Your task to perform on an android device: Clear the shopping cart on costco.com. Search for razer blade on costco.com, select the first entry, add it to the cart, then select checkout. Image 0: 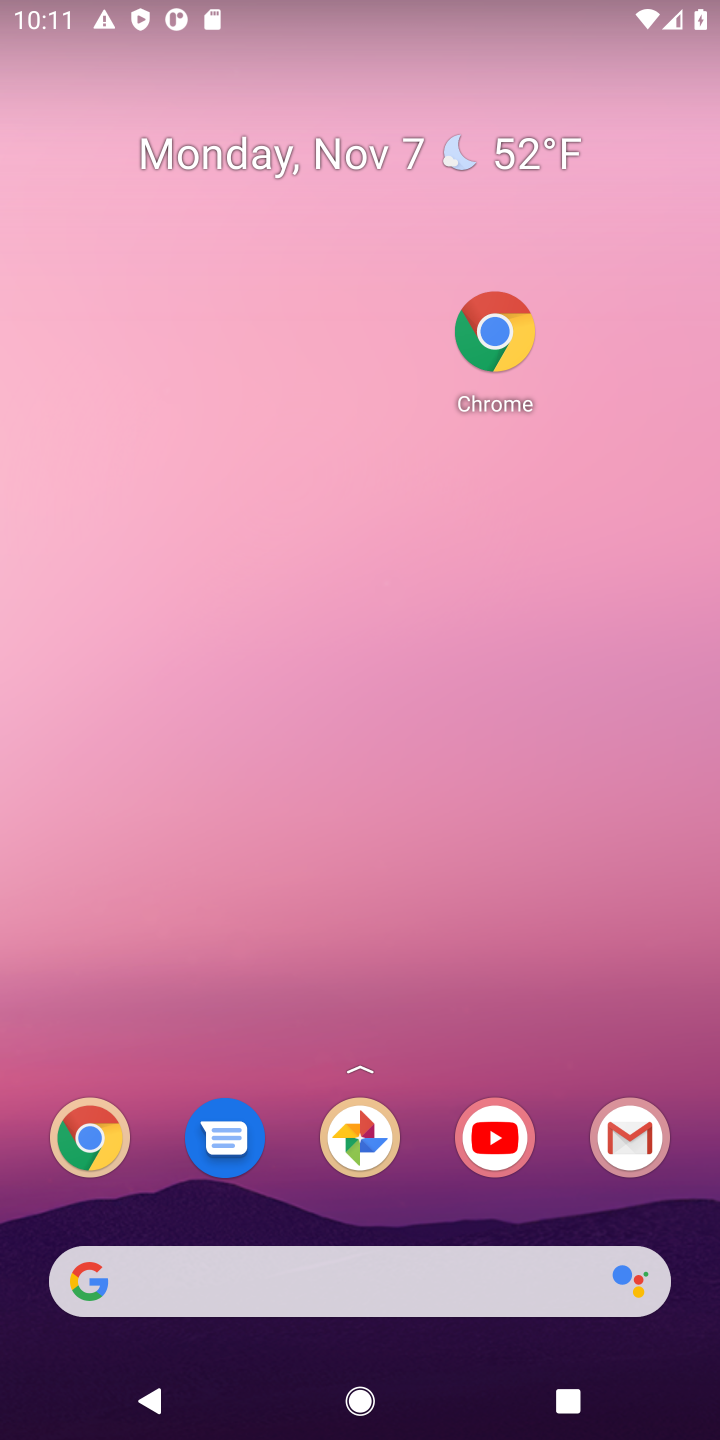
Step 0: drag from (438, 1217) to (244, 90)
Your task to perform on an android device: Clear the shopping cart on costco.com. Search for razer blade on costco.com, select the first entry, add it to the cart, then select checkout. Image 1: 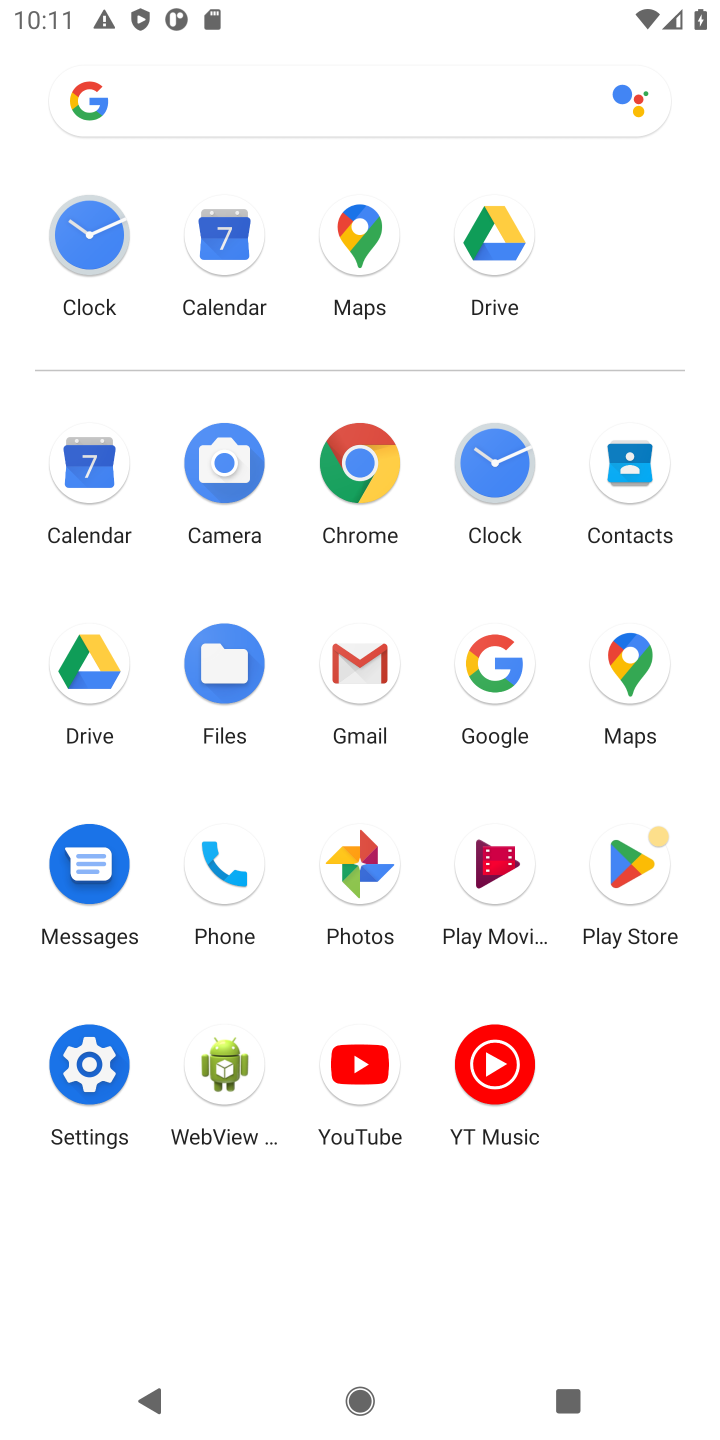
Step 1: click (364, 522)
Your task to perform on an android device: Clear the shopping cart on costco.com. Search for razer blade on costco.com, select the first entry, add it to the cart, then select checkout. Image 2: 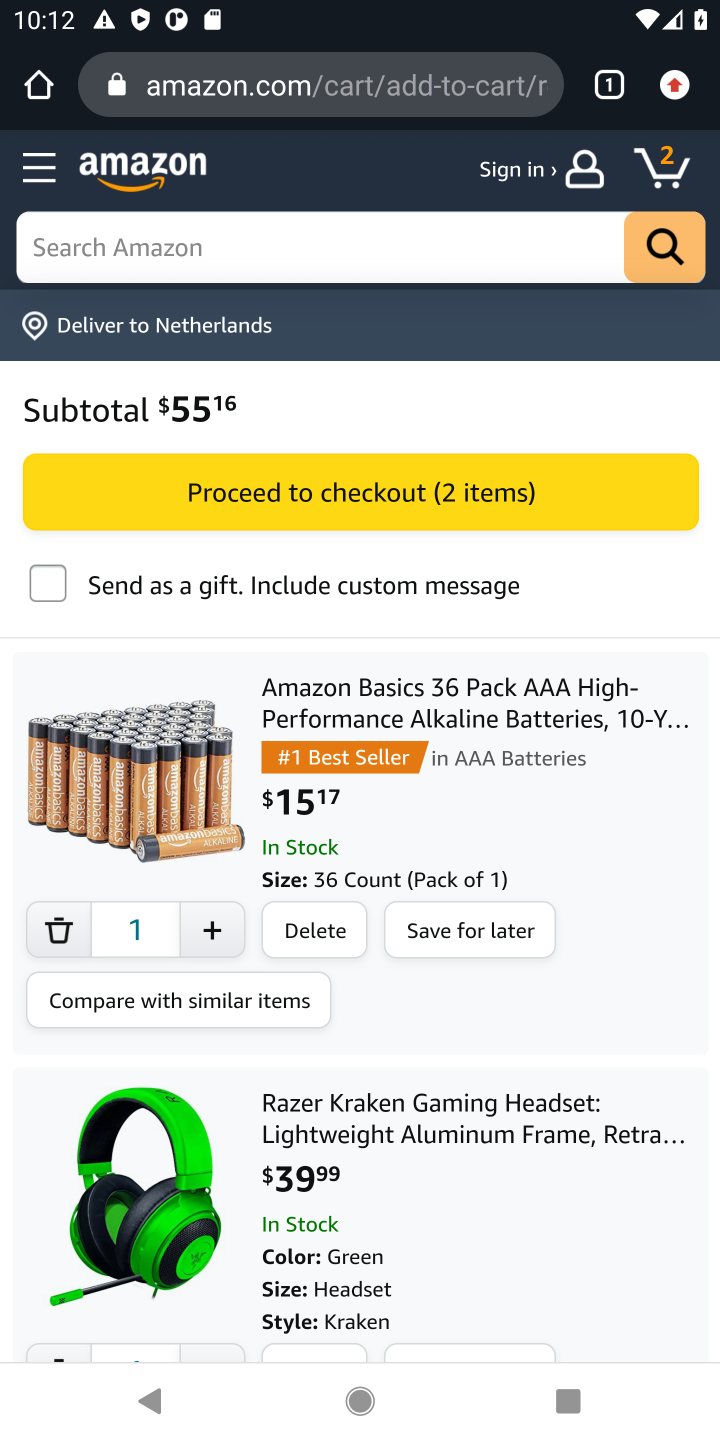
Step 2: click (269, 84)
Your task to perform on an android device: Clear the shopping cart on costco.com. Search for razer blade on costco.com, select the first entry, add it to the cart, then select checkout. Image 3: 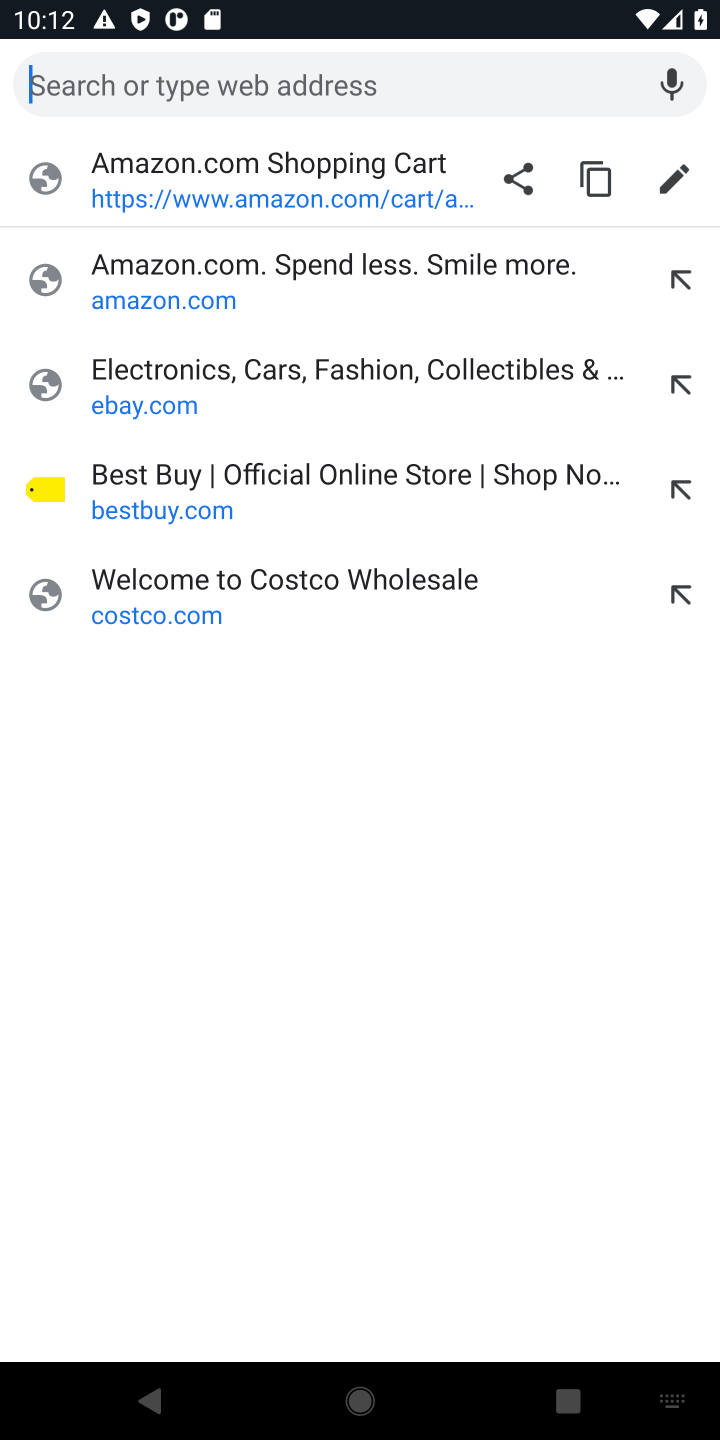
Step 3: click (153, 607)
Your task to perform on an android device: Clear the shopping cart on costco.com. Search for razer blade on costco.com, select the first entry, add it to the cart, then select checkout. Image 4: 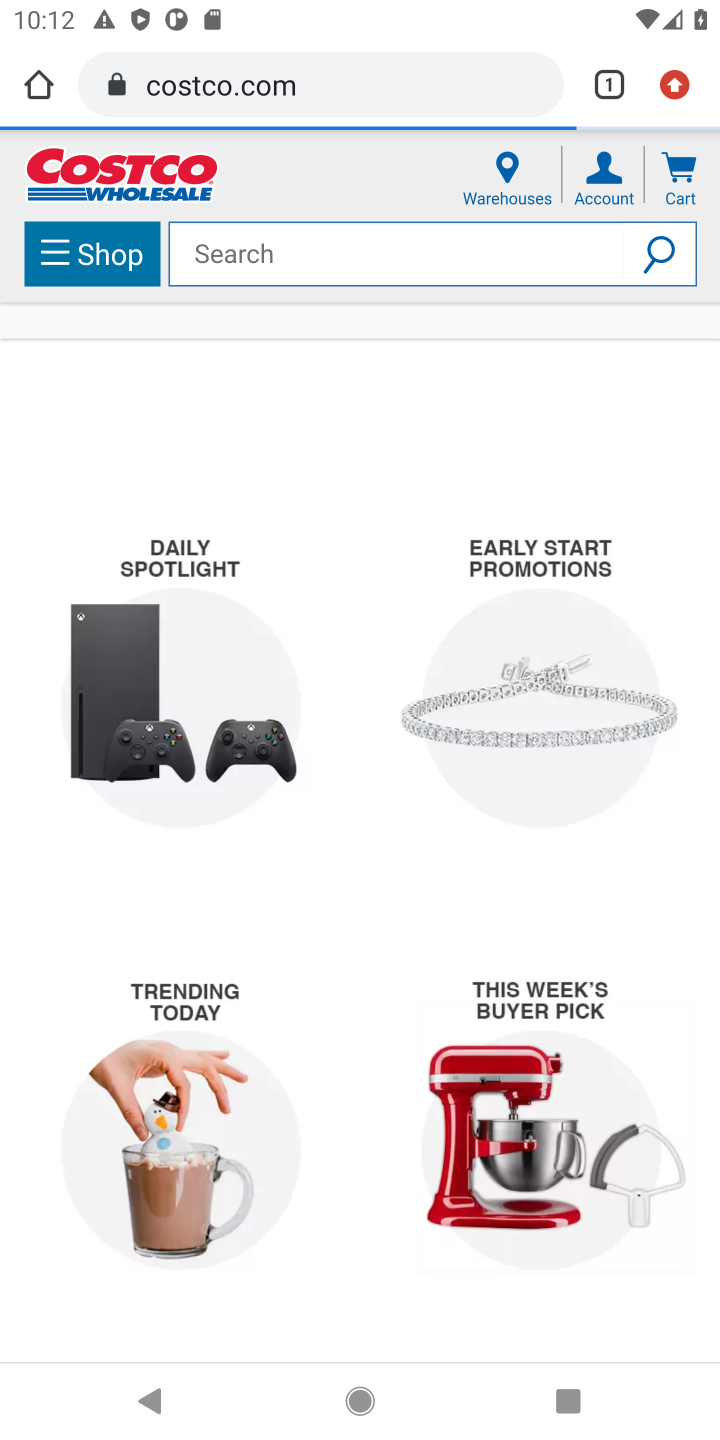
Step 4: click (682, 173)
Your task to perform on an android device: Clear the shopping cart on costco.com. Search for razer blade on costco.com, select the first entry, add it to the cart, then select checkout. Image 5: 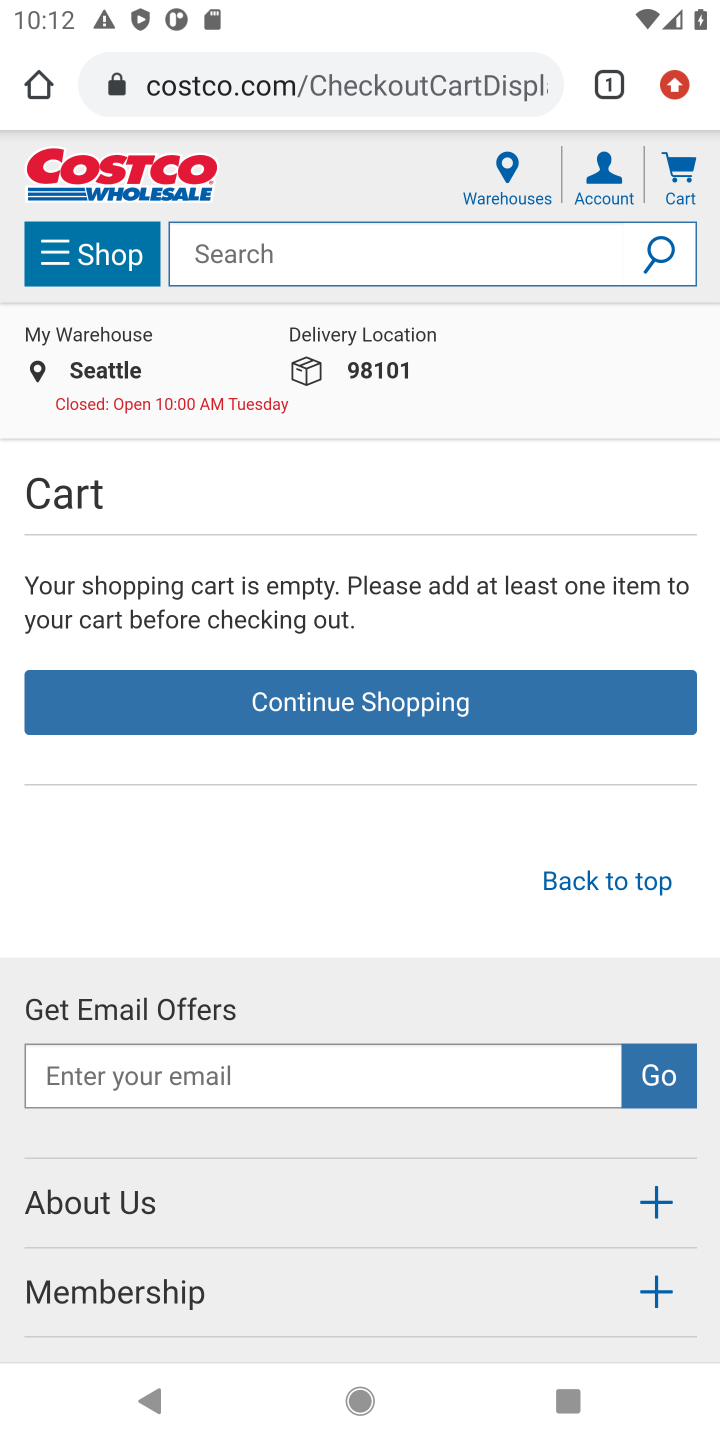
Step 5: click (494, 259)
Your task to perform on an android device: Clear the shopping cart on costco.com. Search for razer blade on costco.com, select the first entry, add it to the cart, then select checkout. Image 6: 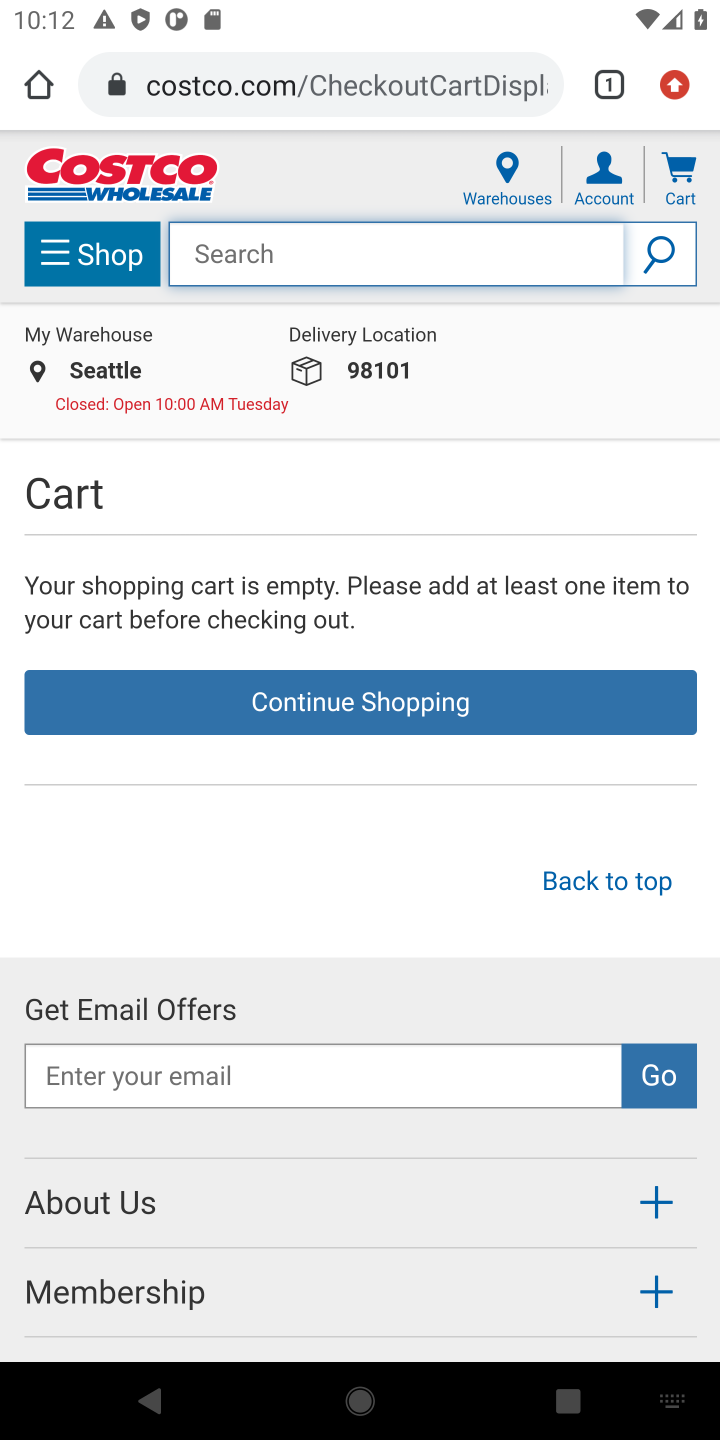
Step 6: type "razer blade"
Your task to perform on an android device: Clear the shopping cart on costco.com. Search for razer blade on costco.com, select the first entry, add it to the cart, then select checkout. Image 7: 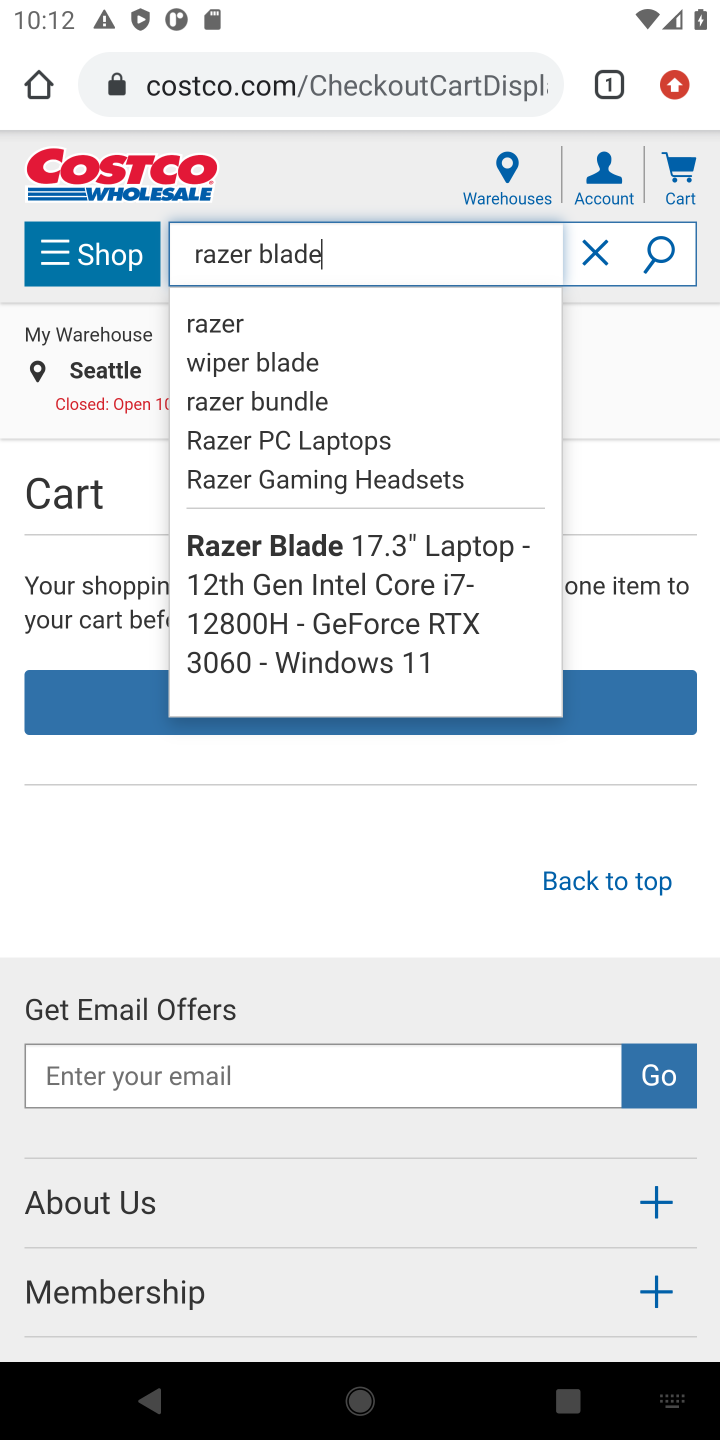
Step 7: press enter
Your task to perform on an android device: Clear the shopping cart on costco.com. Search for razer blade on costco.com, select the first entry, add it to the cart, then select checkout. Image 8: 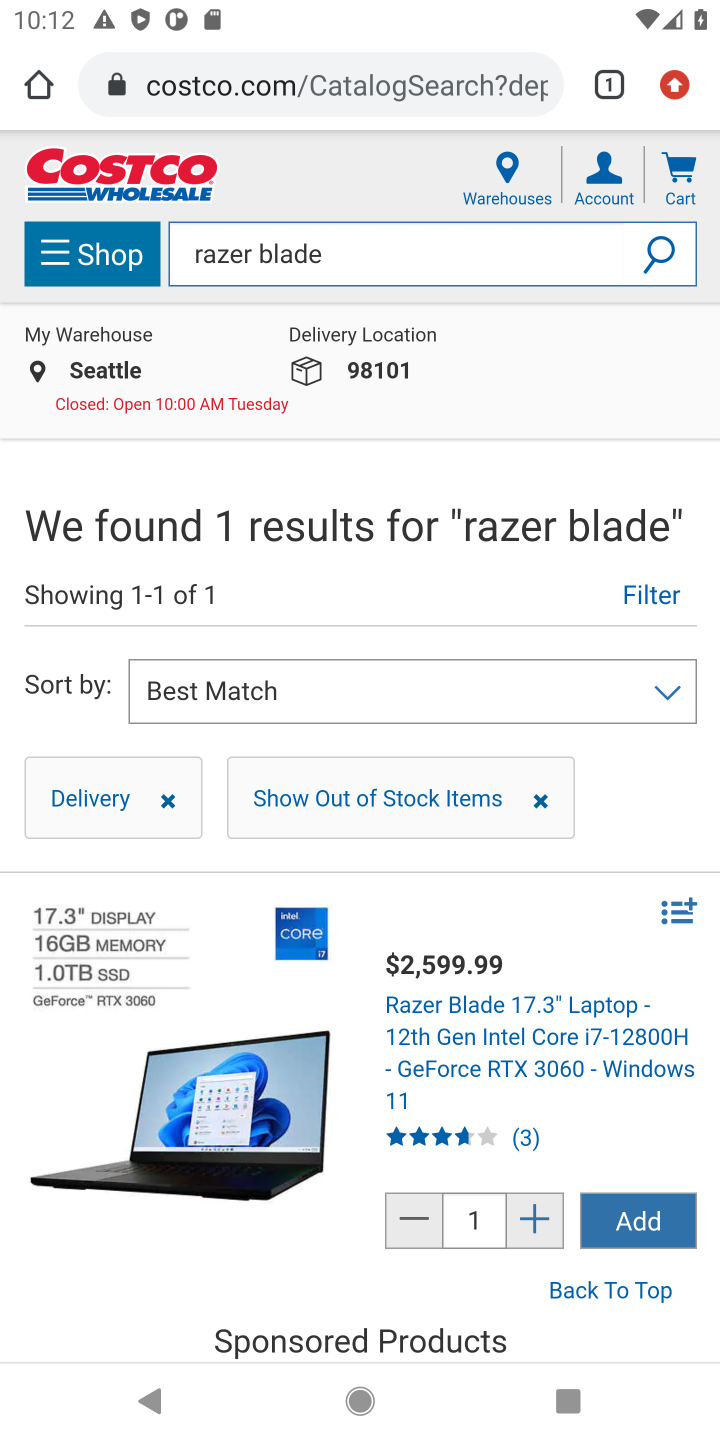
Step 8: drag from (551, 1061) to (536, 658)
Your task to perform on an android device: Clear the shopping cart on costco.com. Search for razer blade on costco.com, select the first entry, add it to the cart, then select checkout. Image 9: 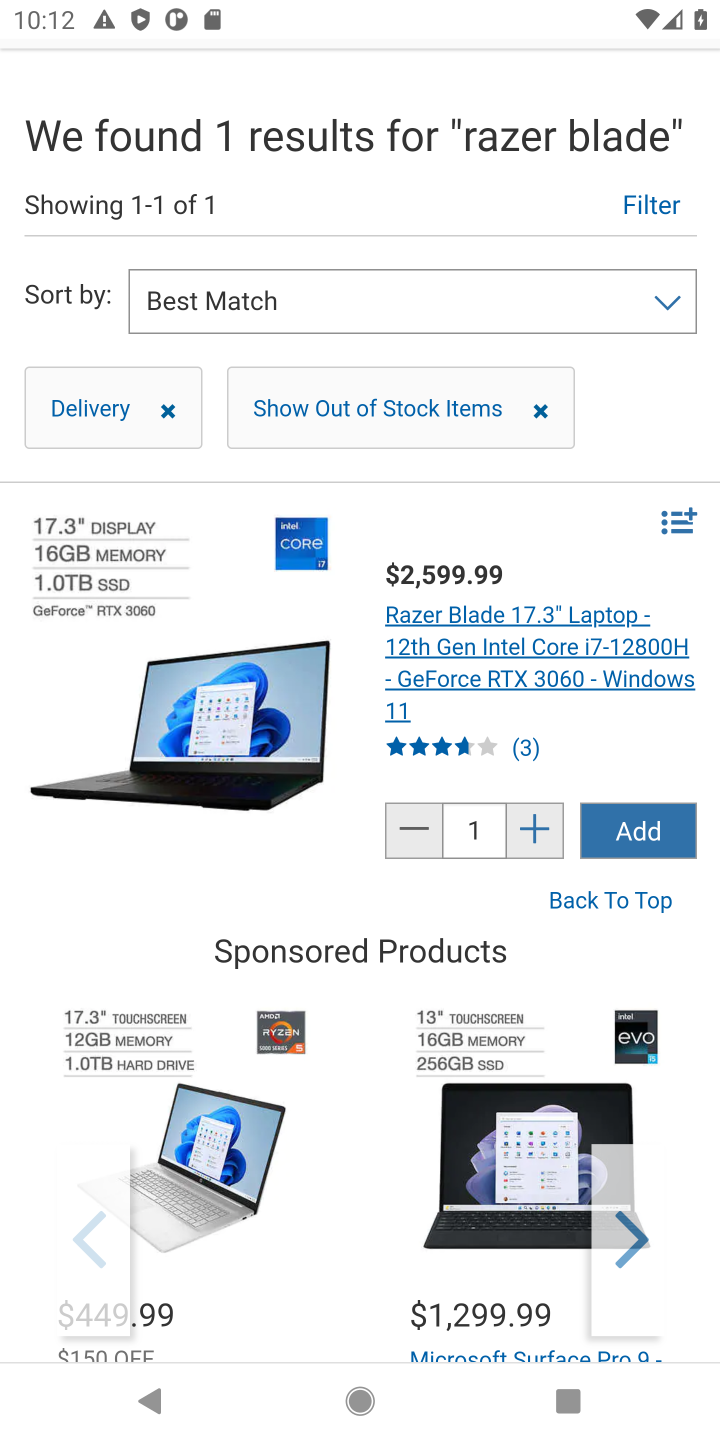
Step 9: click (649, 840)
Your task to perform on an android device: Clear the shopping cart on costco.com. Search for razer blade on costco.com, select the first entry, add it to the cart, then select checkout. Image 10: 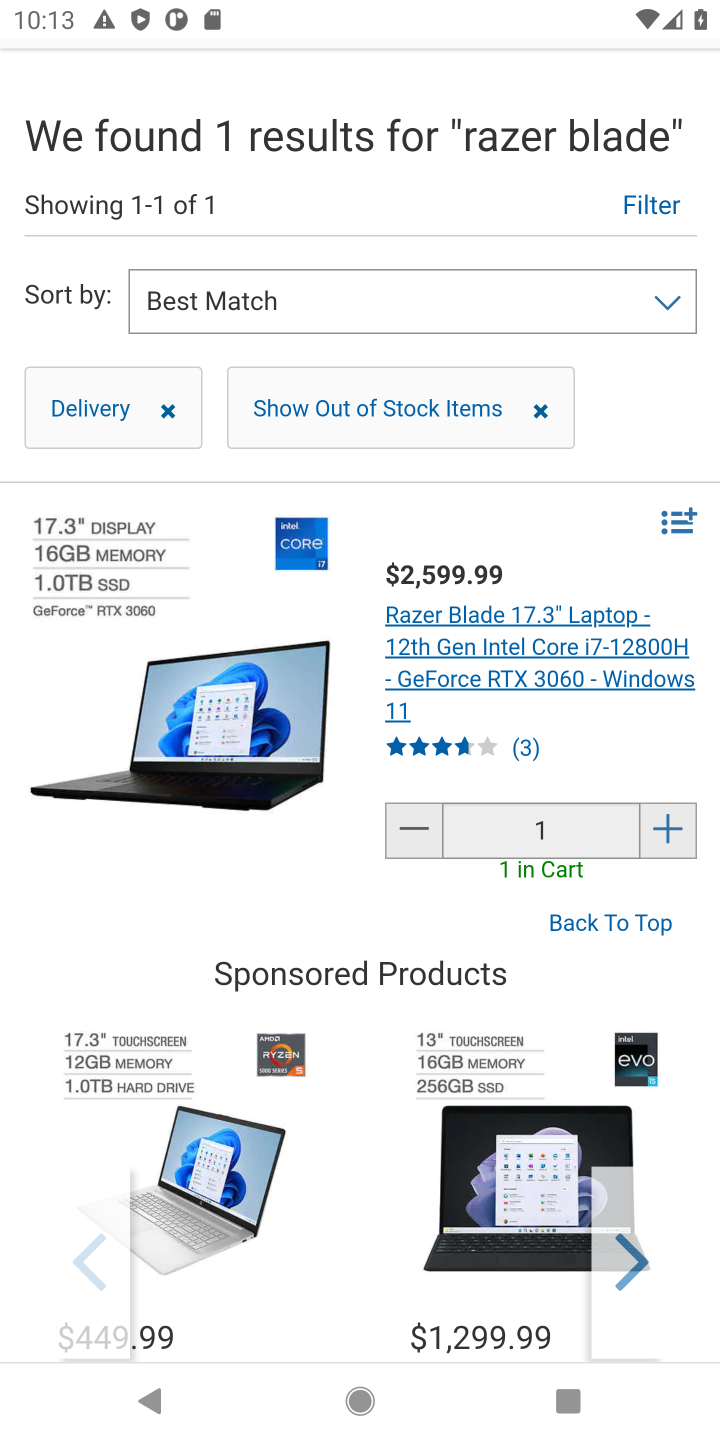
Step 10: drag from (548, 338) to (558, 1045)
Your task to perform on an android device: Clear the shopping cart on costco.com. Search for razer blade on costco.com, select the first entry, add it to the cart, then select checkout. Image 11: 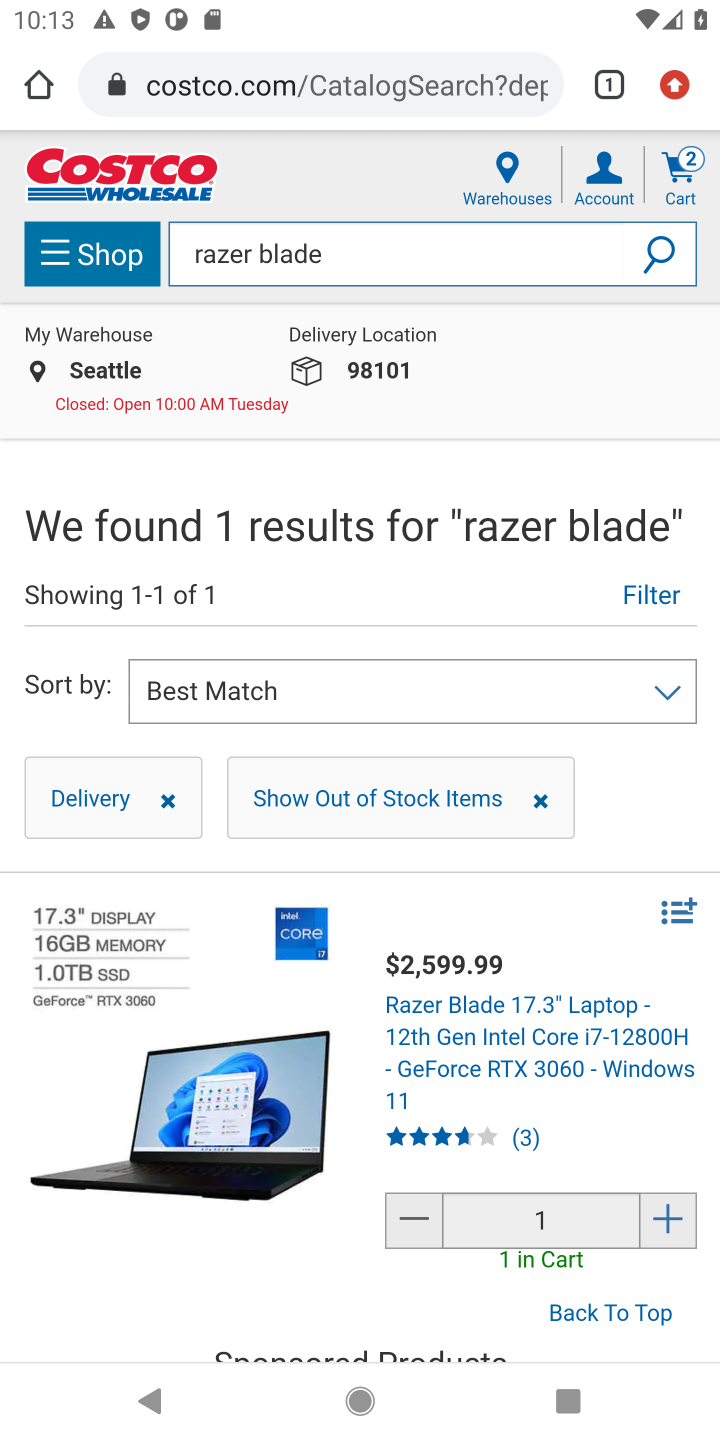
Step 11: click (672, 171)
Your task to perform on an android device: Clear the shopping cart on costco.com. Search for razer blade on costco.com, select the first entry, add it to the cart, then select checkout. Image 12: 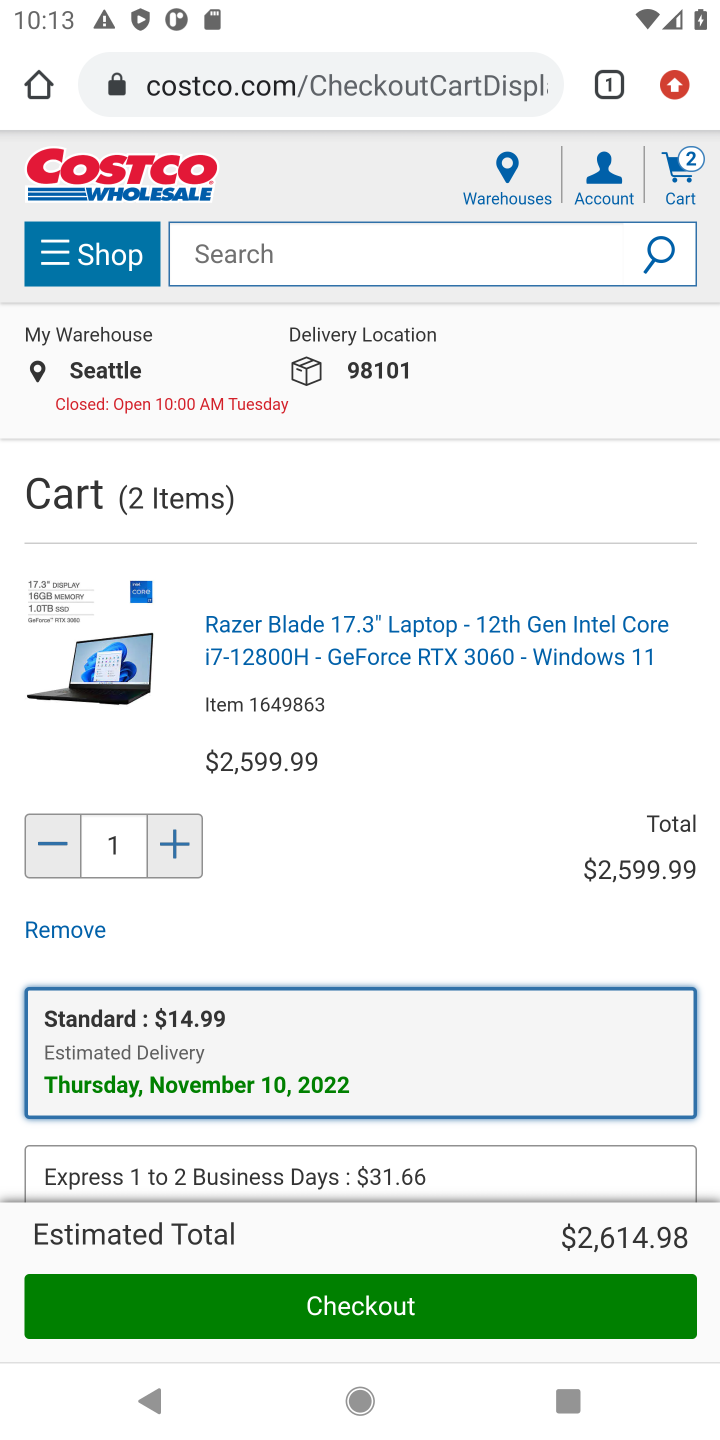
Step 12: click (395, 1300)
Your task to perform on an android device: Clear the shopping cart on costco.com. Search for razer blade on costco.com, select the first entry, add it to the cart, then select checkout. Image 13: 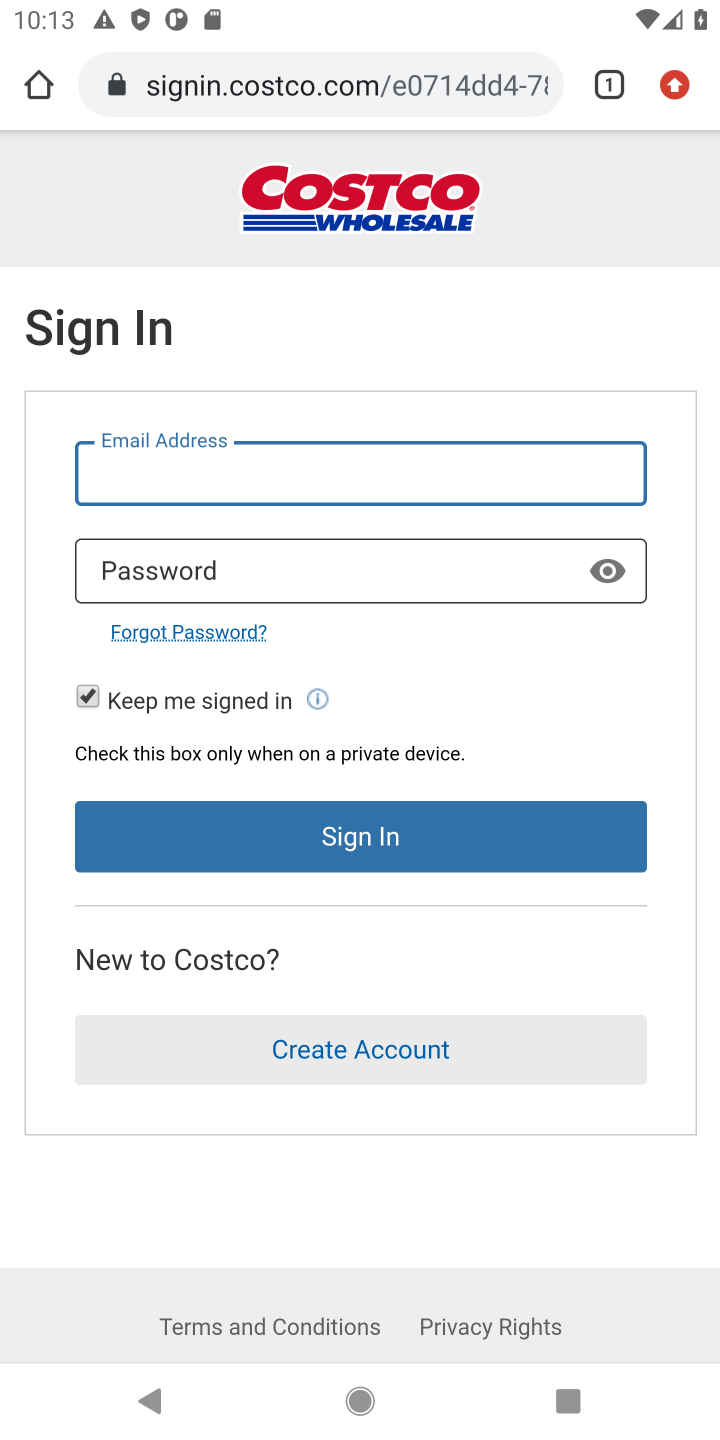
Step 13: task complete